Your task to perform on an android device: Open calendar and show me the third week of next month Image 0: 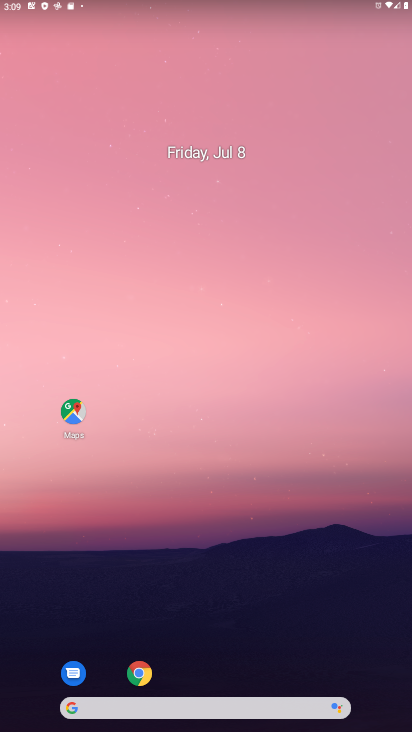
Step 0: drag from (384, 723) to (374, 141)
Your task to perform on an android device: Open calendar and show me the third week of next month Image 1: 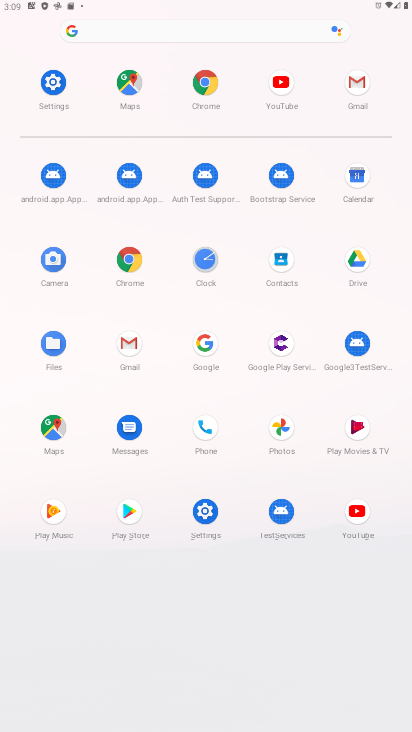
Step 1: click (351, 183)
Your task to perform on an android device: Open calendar and show me the third week of next month Image 2: 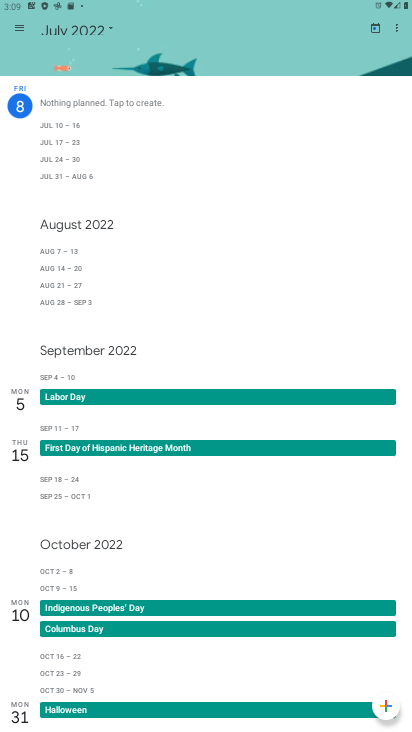
Step 2: click (112, 31)
Your task to perform on an android device: Open calendar and show me the third week of next month Image 3: 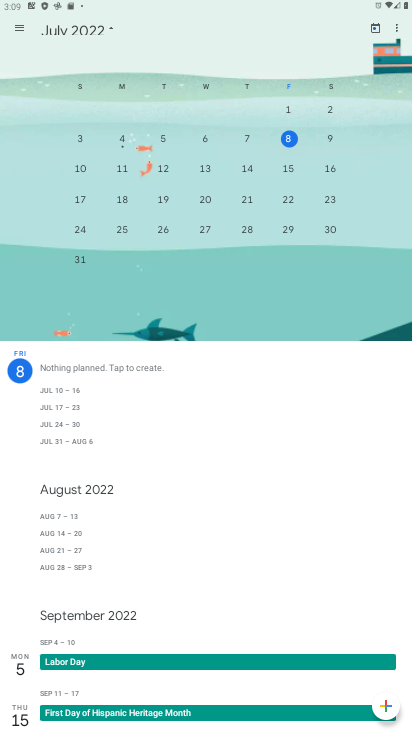
Step 3: drag from (355, 193) to (9, 175)
Your task to perform on an android device: Open calendar and show me the third week of next month Image 4: 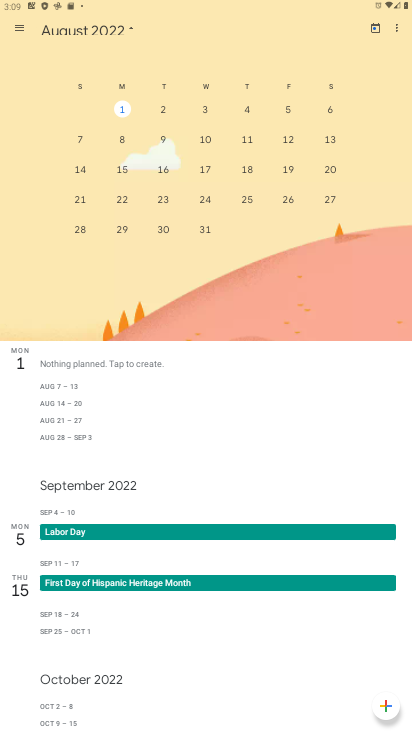
Step 4: click (168, 166)
Your task to perform on an android device: Open calendar and show me the third week of next month Image 5: 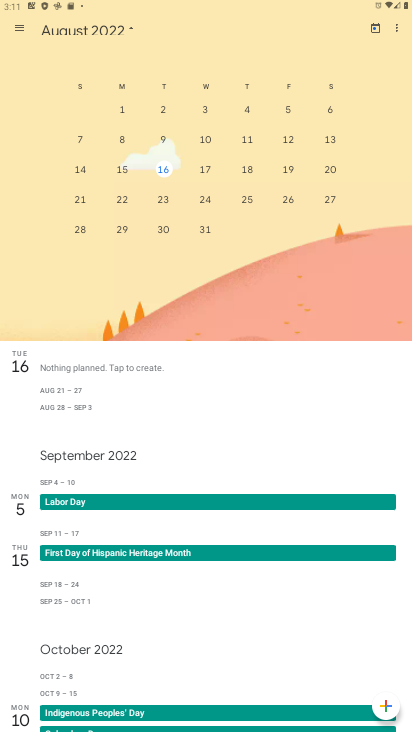
Step 5: task complete